Your task to perform on an android device: Open Google Chrome Image 0: 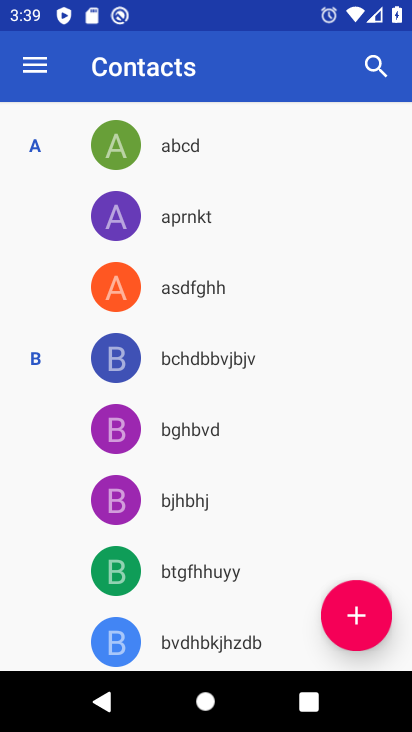
Step 0: press home button
Your task to perform on an android device: Open Google Chrome Image 1: 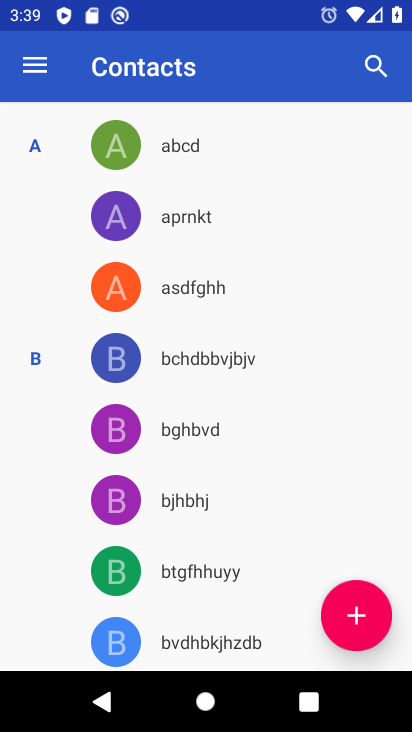
Step 1: press home button
Your task to perform on an android device: Open Google Chrome Image 2: 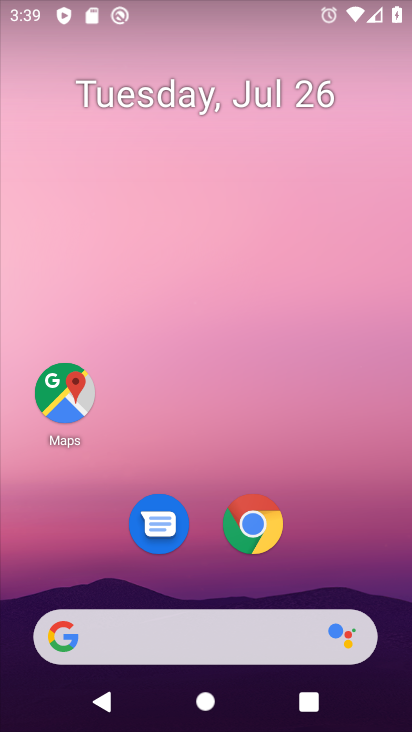
Step 2: click (257, 525)
Your task to perform on an android device: Open Google Chrome Image 3: 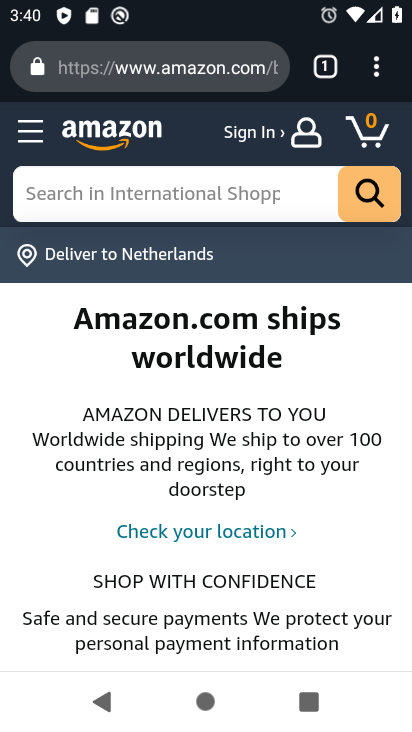
Step 3: task complete